Your task to perform on an android device: Show me popular games on the Play Store Image 0: 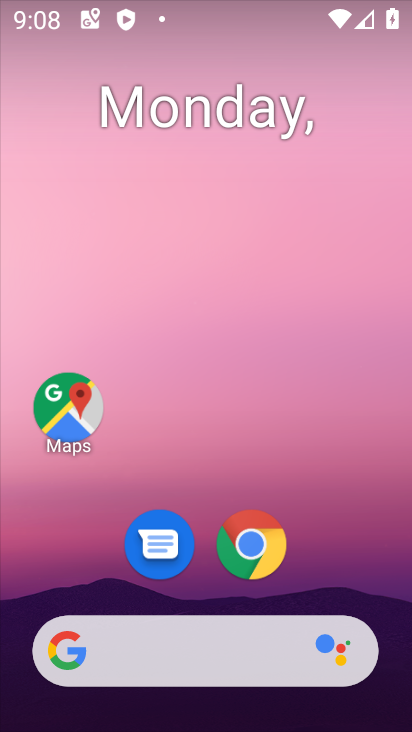
Step 0: drag from (333, 539) to (279, 346)
Your task to perform on an android device: Show me popular games on the Play Store Image 1: 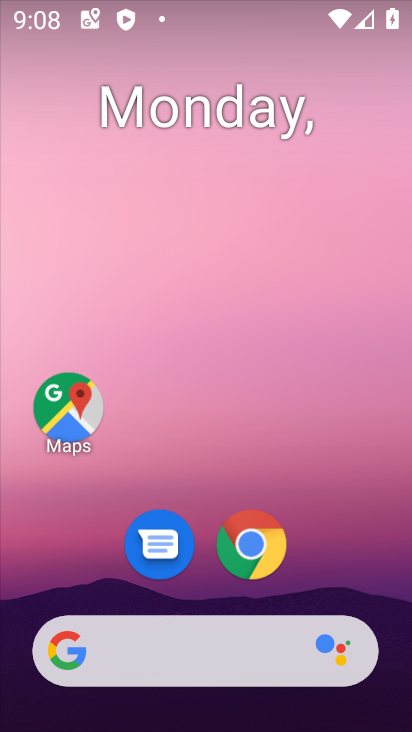
Step 1: drag from (334, 553) to (319, 5)
Your task to perform on an android device: Show me popular games on the Play Store Image 2: 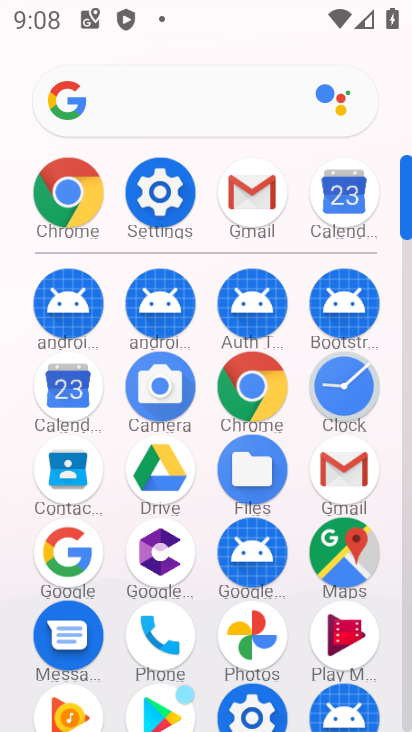
Step 2: click (400, 678)
Your task to perform on an android device: Show me popular games on the Play Store Image 3: 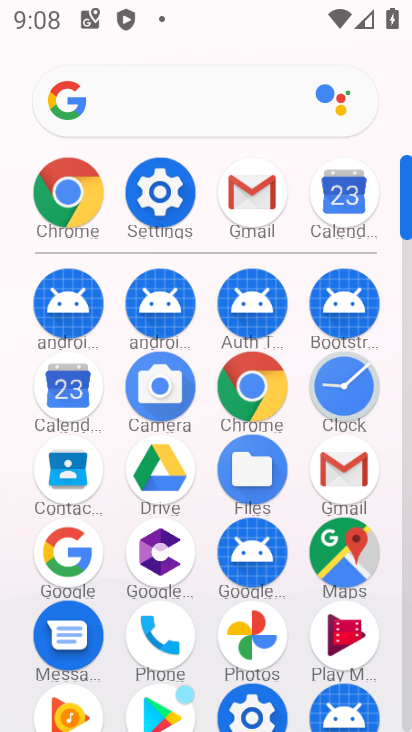
Step 3: click (400, 678)
Your task to perform on an android device: Show me popular games on the Play Store Image 4: 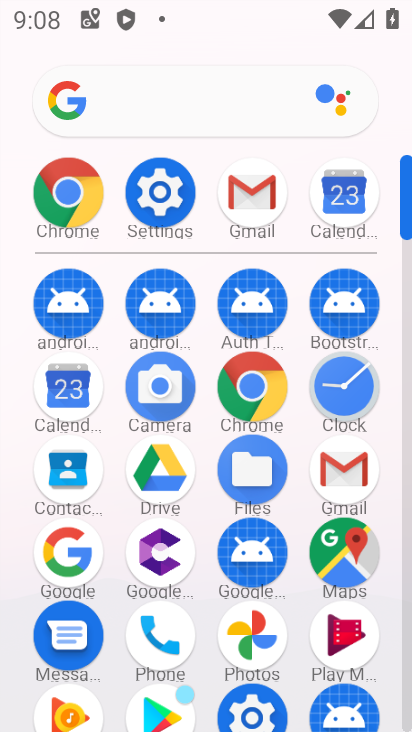
Step 4: click (400, 678)
Your task to perform on an android device: Show me popular games on the Play Store Image 5: 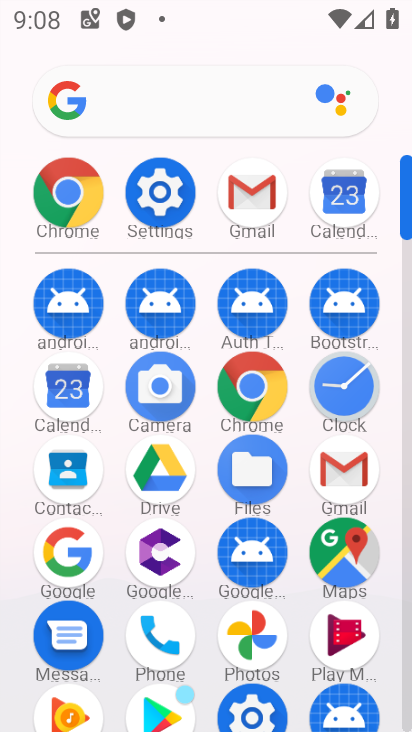
Step 5: click (400, 678)
Your task to perform on an android device: Show me popular games on the Play Store Image 6: 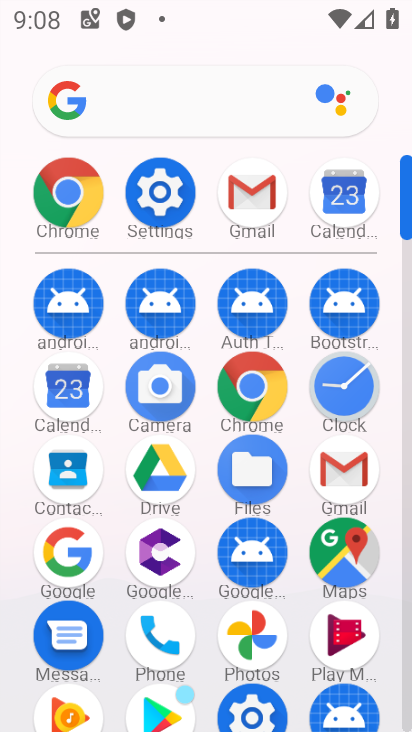
Step 6: drag from (187, 656) to (187, 18)
Your task to perform on an android device: Show me popular games on the Play Store Image 7: 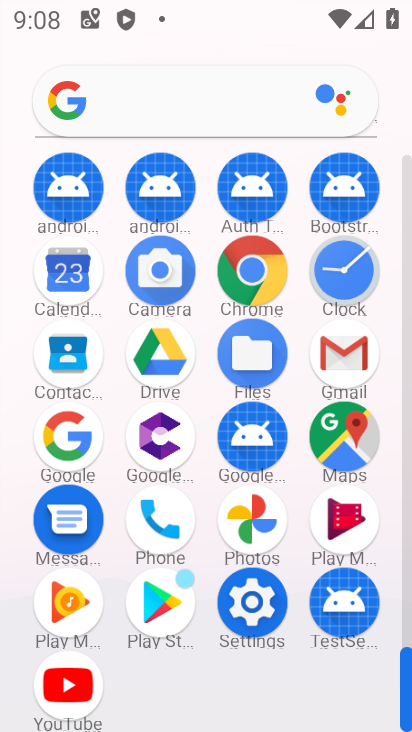
Step 7: click (156, 597)
Your task to perform on an android device: Show me popular games on the Play Store Image 8: 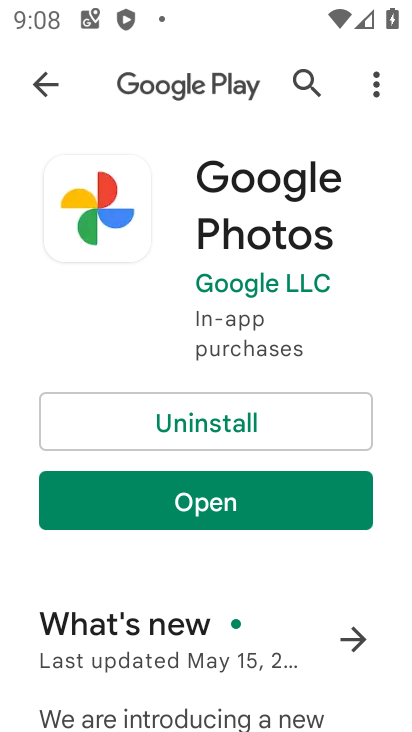
Step 8: click (46, 81)
Your task to perform on an android device: Show me popular games on the Play Store Image 9: 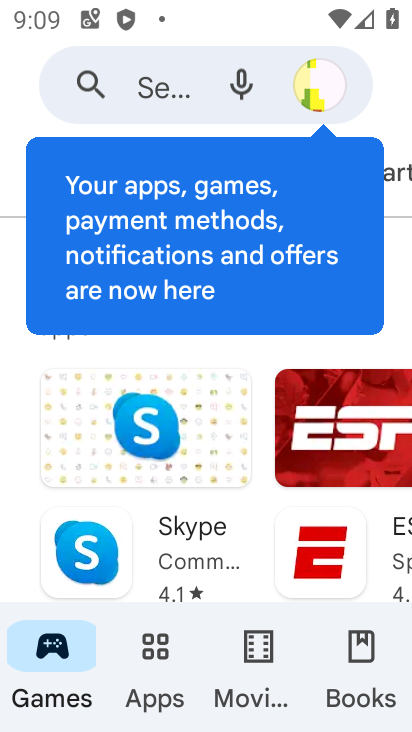
Step 9: click (67, 642)
Your task to perform on an android device: Show me popular games on the Play Store Image 10: 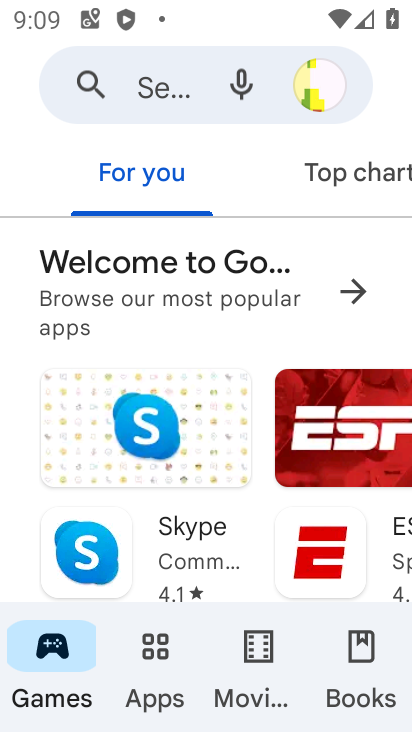
Step 10: task complete